Your task to perform on an android device: open app "Life360: Find Family & Friends" Image 0: 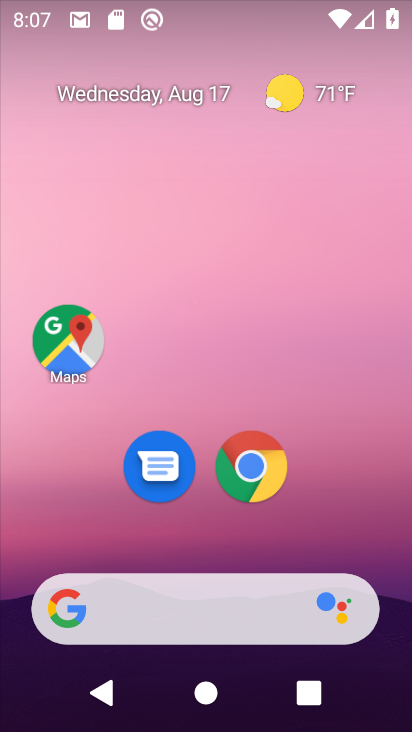
Step 0: click (327, 173)
Your task to perform on an android device: open app "Life360: Find Family & Friends" Image 1: 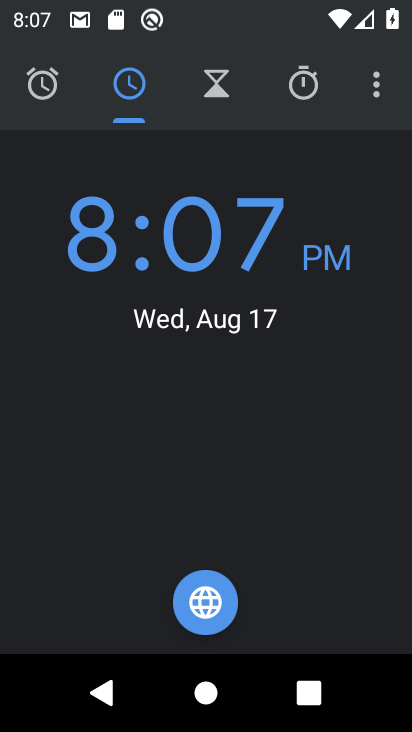
Step 1: press home button
Your task to perform on an android device: open app "Life360: Find Family & Friends" Image 2: 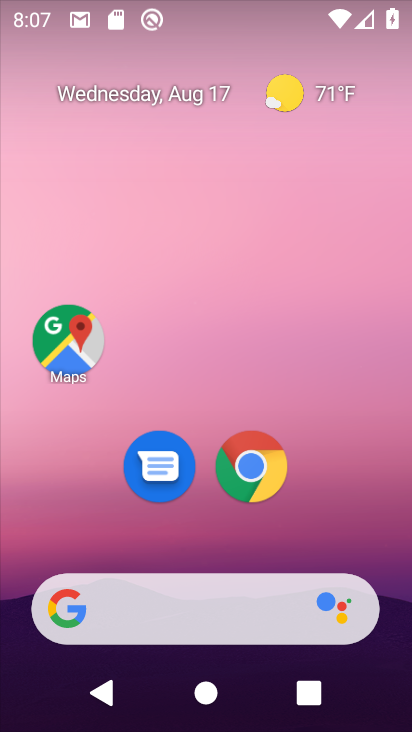
Step 2: drag from (185, 537) to (307, 20)
Your task to perform on an android device: open app "Life360: Find Family & Friends" Image 3: 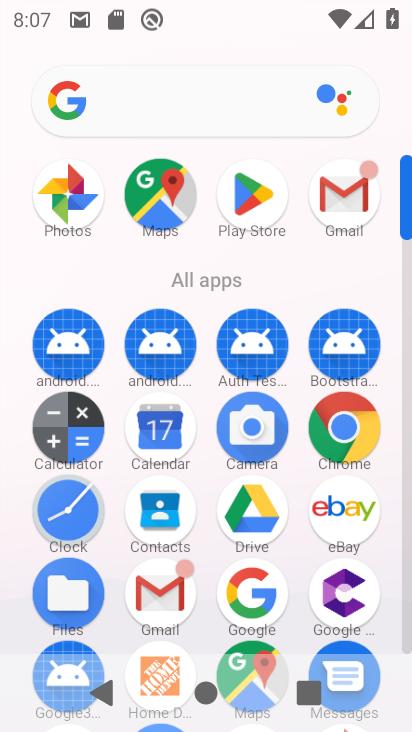
Step 3: click (248, 199)
Your task to perform on an android device: open app "Life360: Find Family & Friends" Image 4: 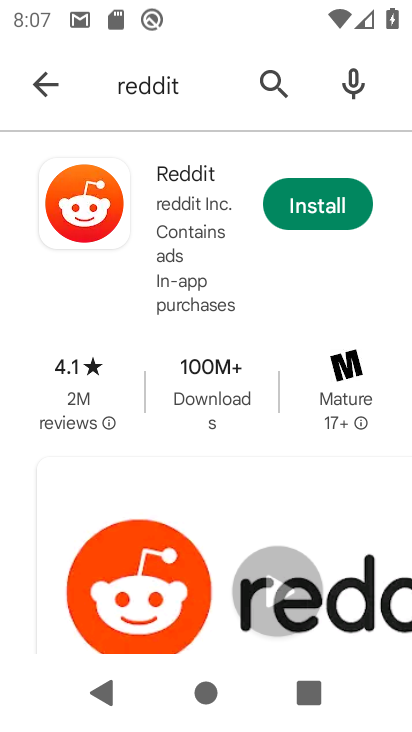
Step 4: click (173, 92)
Your task to perform on an android device: open app "Life360: Find Family & Friends" Image 5: 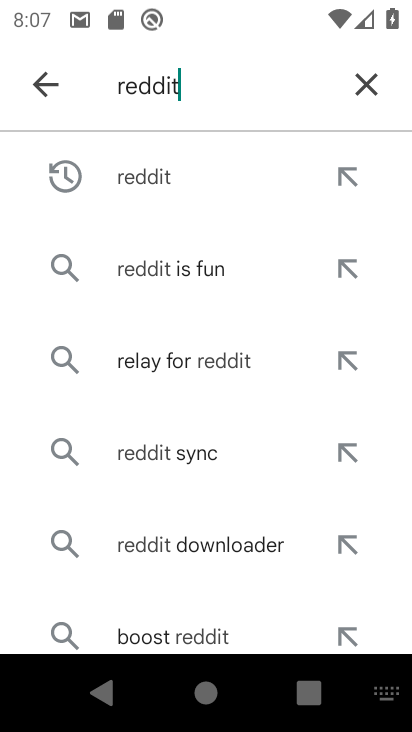
Step 5: click (360, 92)
Your task to perform on an android device: open app "Life360: Find Family & Friends" Image 6: 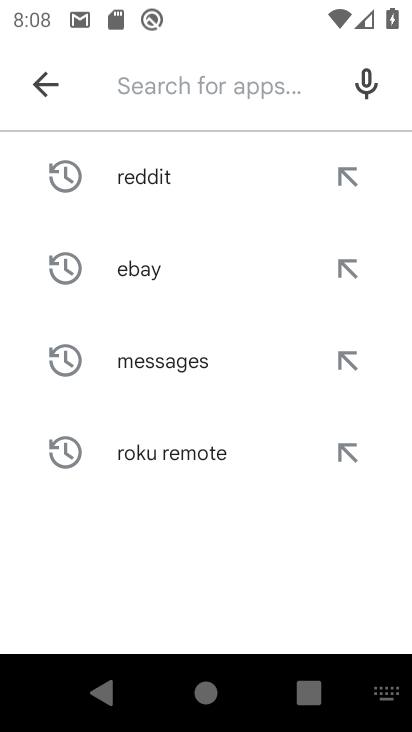
Step 6: type "life360"
Your task to perform on an android device: open app "Life360: Find Family & Friends" Image 7: 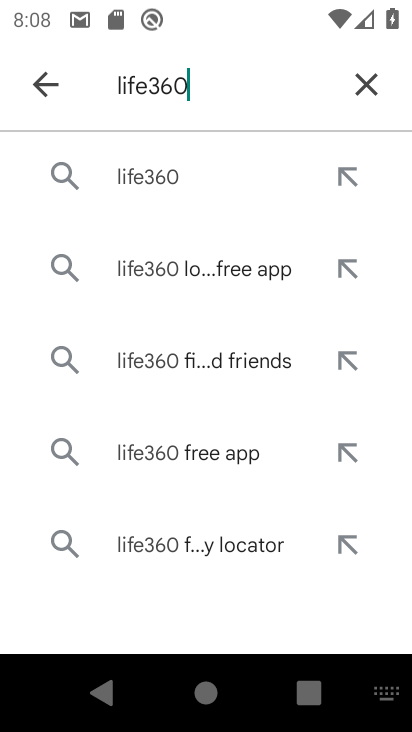
Step 7: click (188, 184)
Your task to perform on an android device: open app "Life360: Find Family & Friends" Image 8: 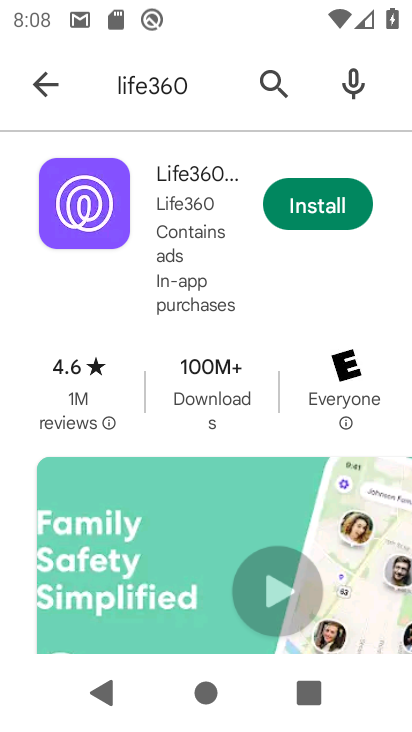
Step 8: task complete